Your task to perform on an android device: What's the weather going to be tomorrow? Image 0: 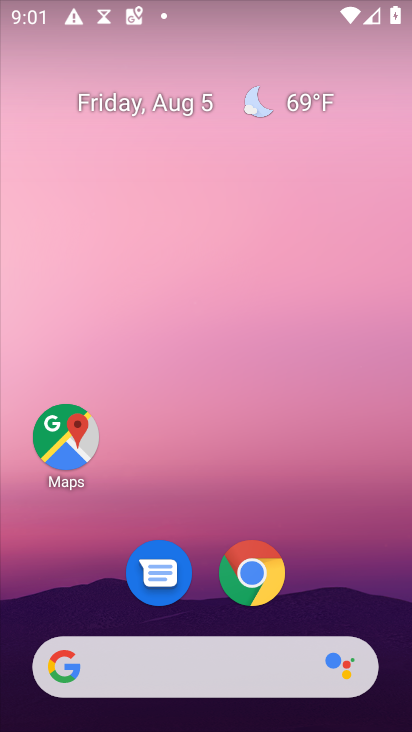
Step 0: drag from (181, 676) to (232, 133)
Your task to perform on an android device: What's the weather going to be tomorrow? Image 1: 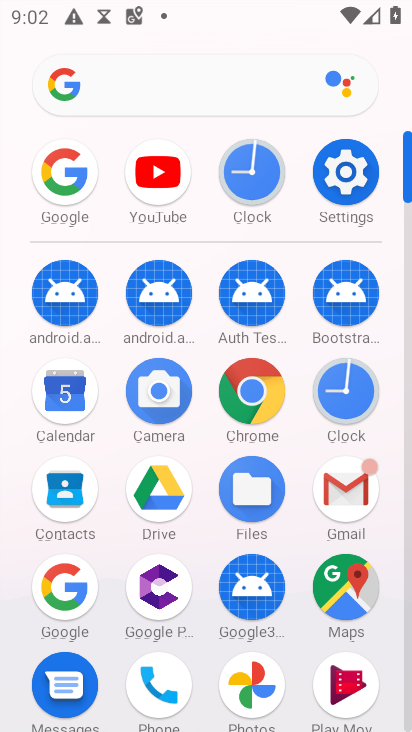
Step 1: click (63, 172)
Your task to perform on an android device: What's the weather going to be tomorrow? Image 2: 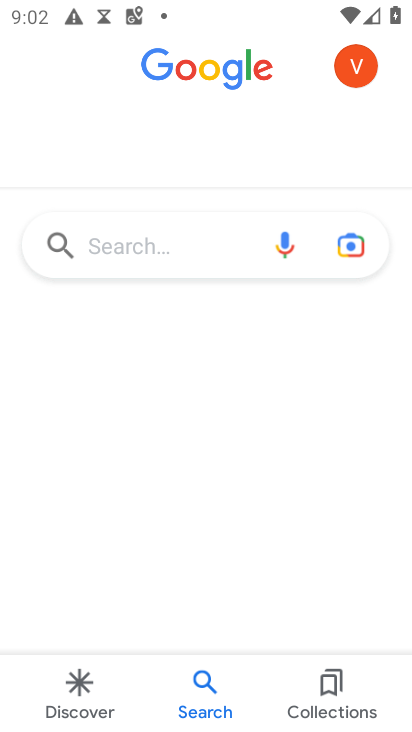
Step 2: click (135, 236)
Your task to perform on an android device: What's the weather going to be tomorrow? Image 3: 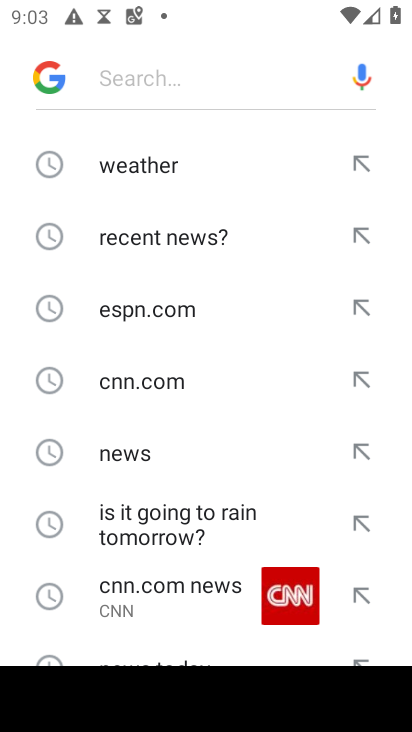
Step 3: type "What's the weather going to be tomorrow?"
Your task to perform on an android device: What's the weather going to be tomorrow? Image 4: 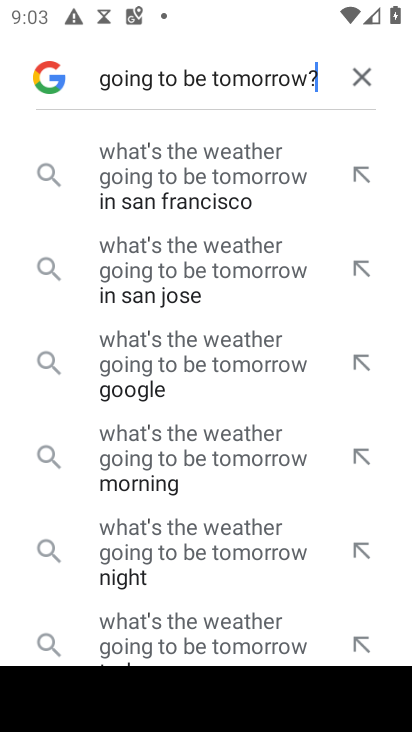
Step 4: click (200, 211)
Your task to perform on an android device: What's the weather going to be tomorrow? Image 5: 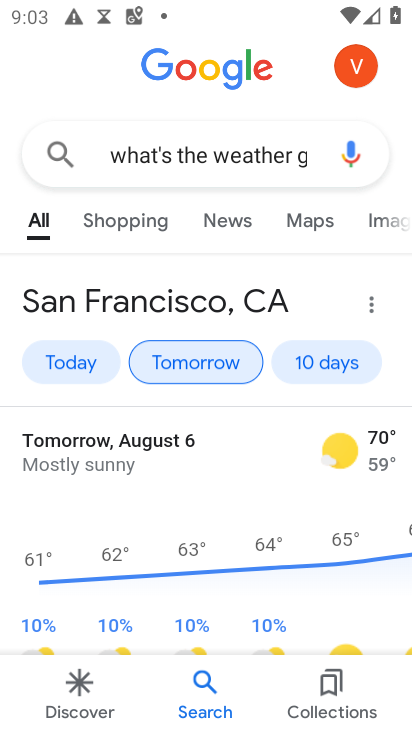
Step 5: task complete